Your task to perform on an android device: turn on the 12-hour format for clock Image 0: 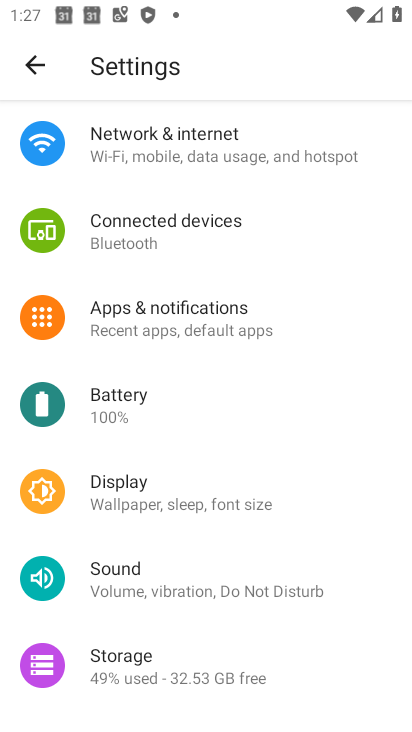
Step 0: press home button
Your task to perform on an android device: turn on the 12-hour format for clock Image 1: 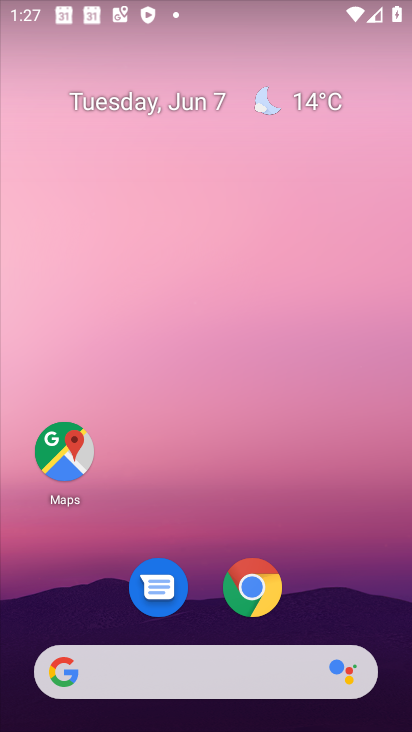
Step 1: drag from (86, 693) to (52, 203)
Your task to perform on an android device: turn on the 12-hour format for clock Image 2: 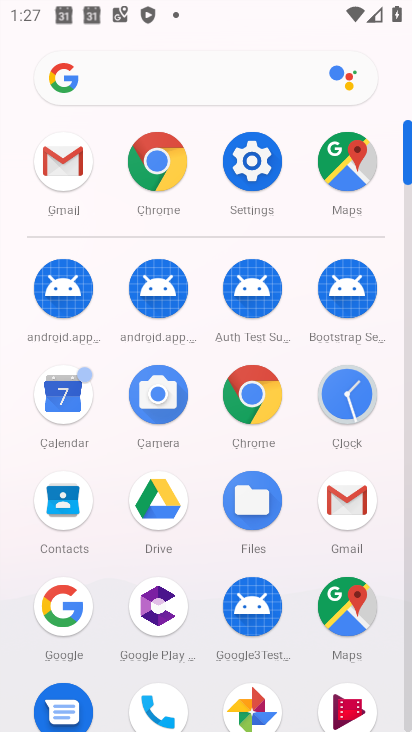
Step 2: click (357, 419)
Your task to perform on an android device: turn on the 12-hour format for clock Image 3: 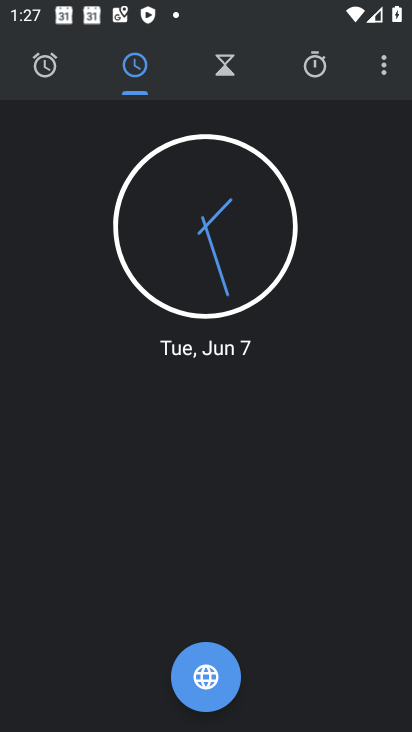
Step 3: click (385, 72)
Your task to perform on an android device: turn on the 12-hour format for clock Image 4: 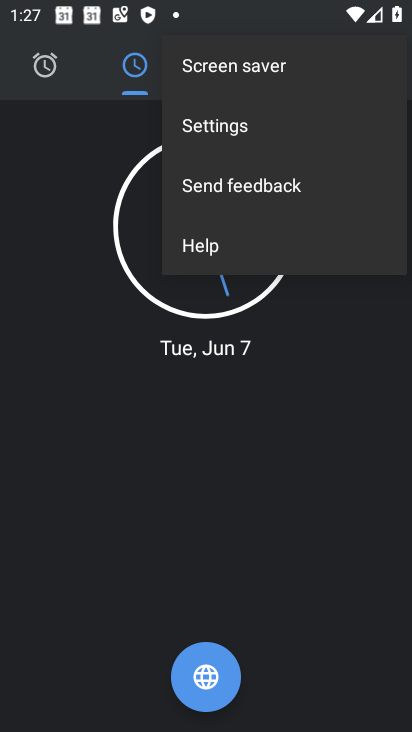
Step 4: click (209, 135)
Your task to perform on an android device: turn on the 12-hour format for clock Image 5: 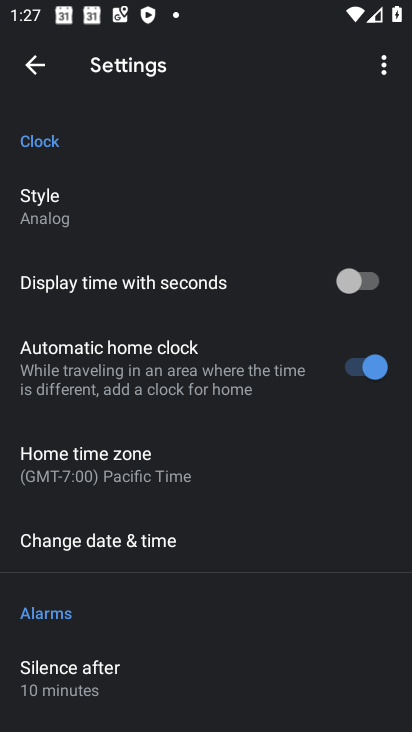
Step 5: click (180, 533)
Your task to perform on an android device: turn on the 12-hour format for clock Image 6: 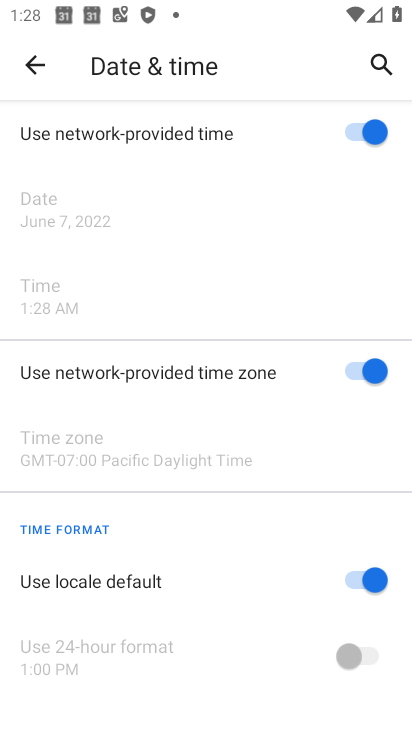
Step 6: task complete